Your task to perform on an android device: Open Amazon Image 0: 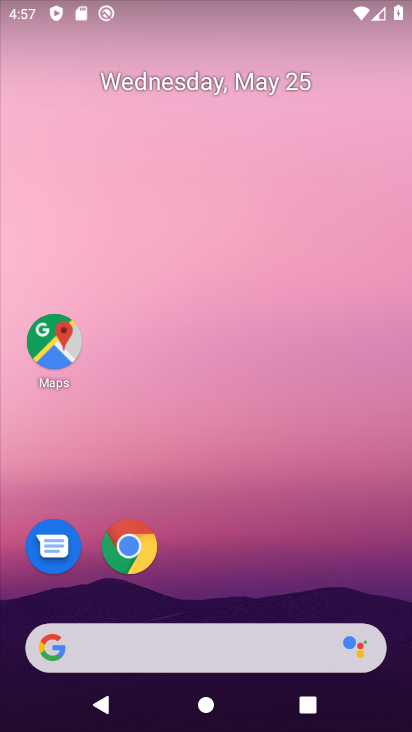
Step 0: click (132, 536)
Your task to perform on an android device: Open Amazon Image 1: 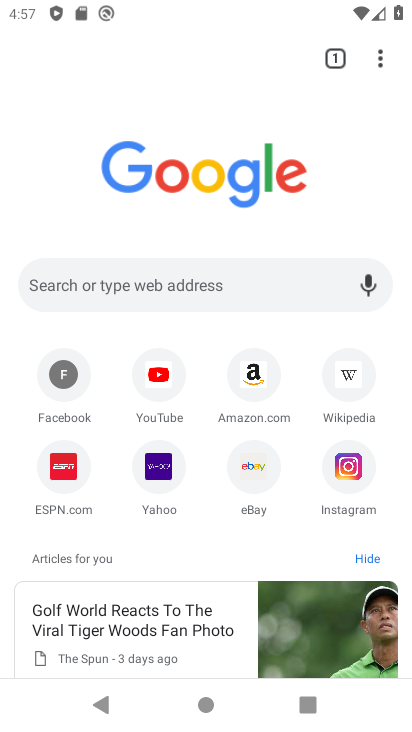
Step 1: click (272, 375)
Your task to perform on an android device: Open Amazon Image 2: 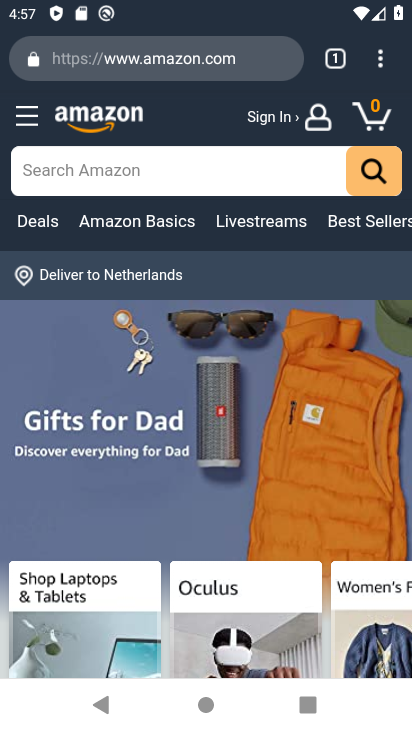
Step 2: task complete